Your task to perform on an android device: Go to wifi settings Image 0: 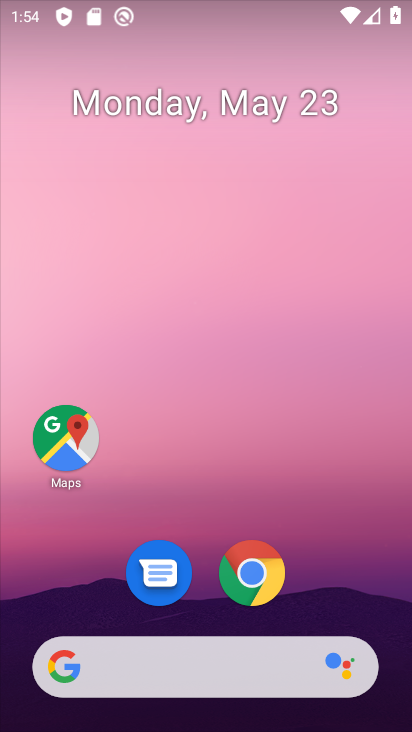
Step 0: drag from (320, 435) to (272, 74)
Your task to perform on an android device: Go to wifi settings Image 1: 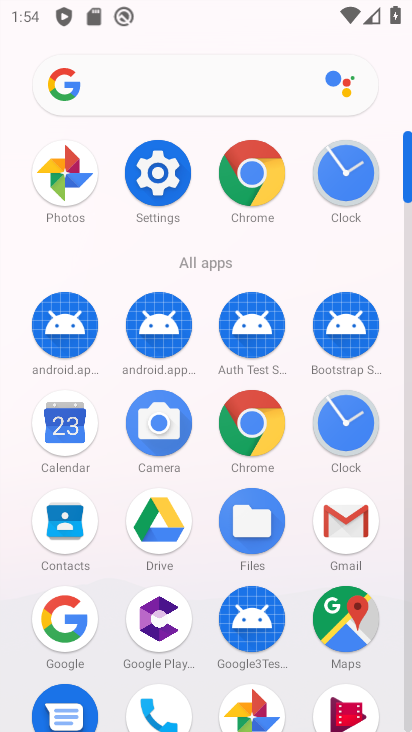
Step 1: click (159, 183)
Your task to perform on an android device: Go to wifi settings Image 2: 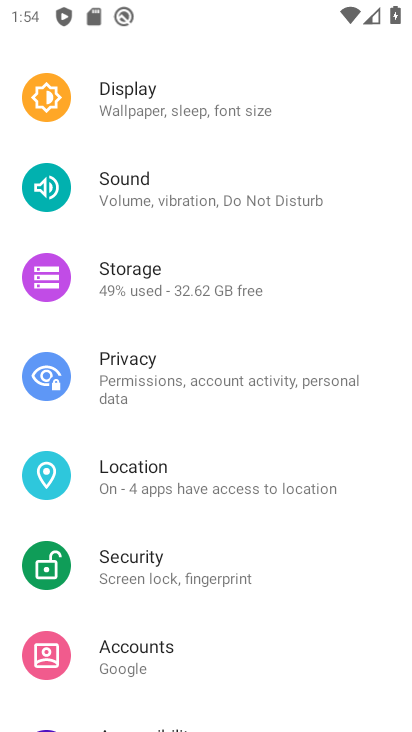
Step 2: drag from (239, 137) to (238, 581)
Your task to perform on an android device: Go to wifi settings Image 3: 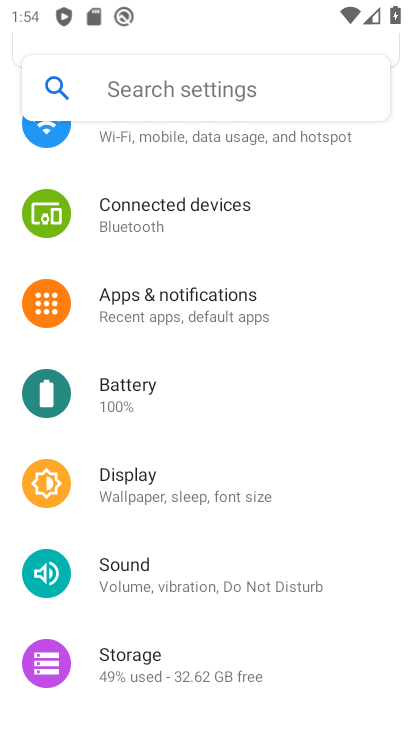
Step 3: click (196, 140)
Your task to perform on an android device: Go to wifi settings Image 4: 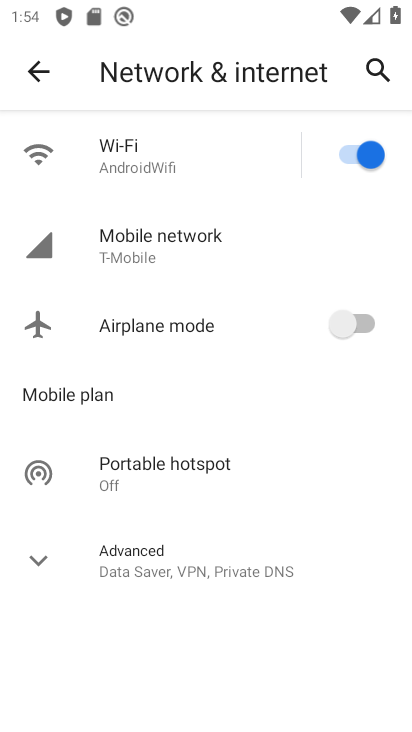
Step 4: click (193, 146)
Your task to perform on an android device: Go to wifi settings Image 5: 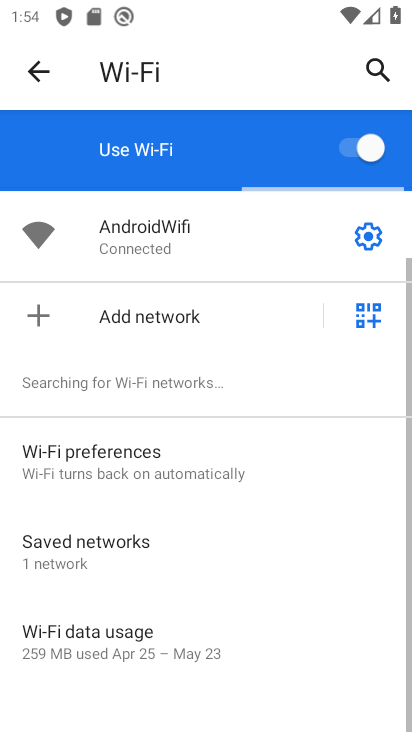
Step 5: click (375, 229)
Your task to perform on an android device: Go to wifi settings Image 6: 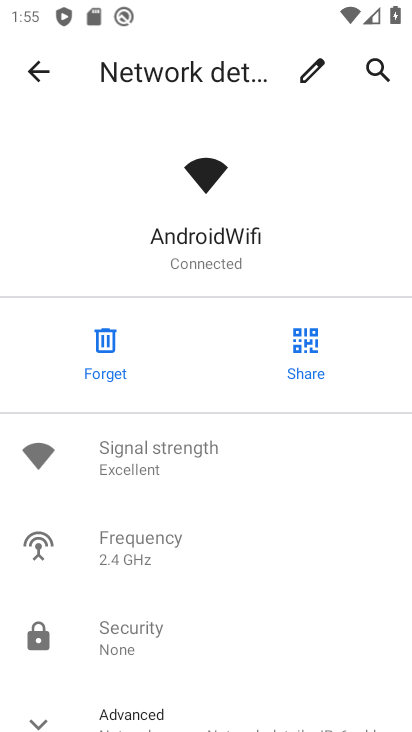
Step 6: task complete